Your task to perform on an android device: move an email to a new category in the gmail app Image 0: 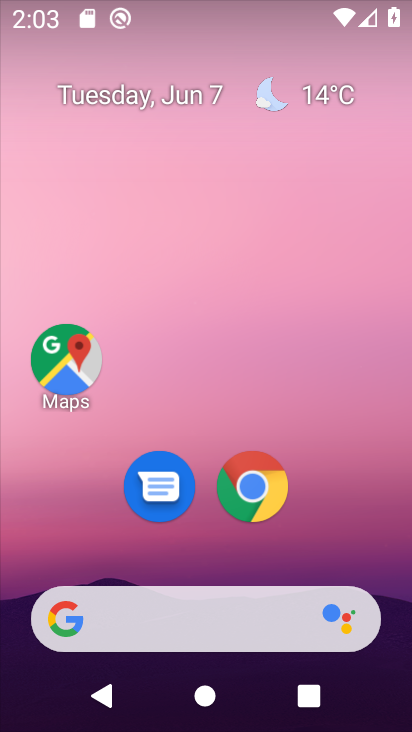
Step 0: drag from (118, 480) to (189, 159)
Your task to perform on an android device: move an email to a new category in the gmail app Image 1: 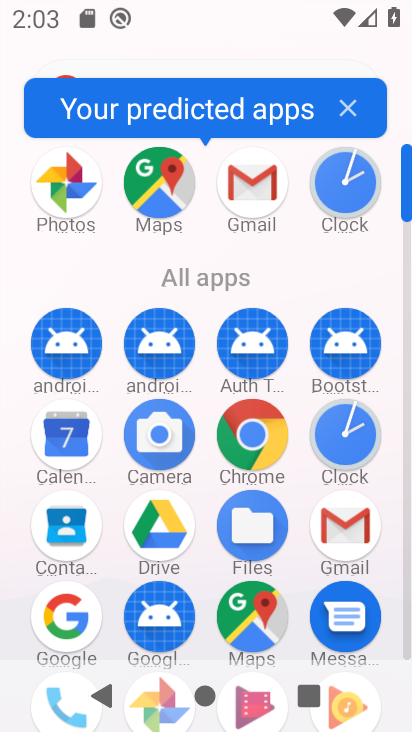
Step 1: drag from (196, 596) to (301, 287)
Your task to perform on an android device: move an email to a new category in the gmail app Image 2: 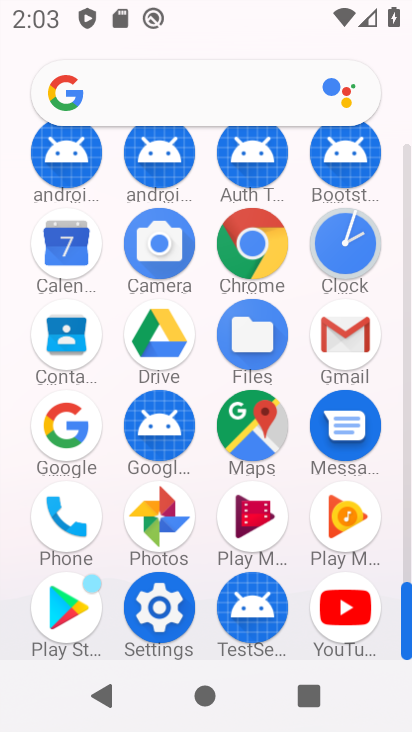
Step 2: click (345, 334)
Your task to perform on an android device: move an email to a new category in the gmail app Image 3: 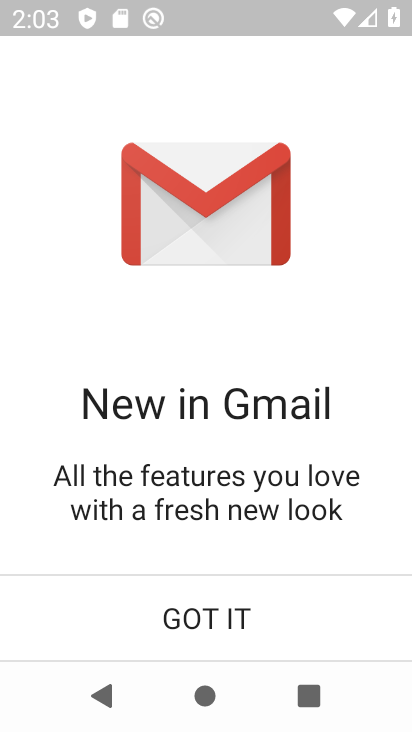
Step 3: click (236, 620)
Your task to perform on an android device: move an email to a new category in the gmail app Image 4: 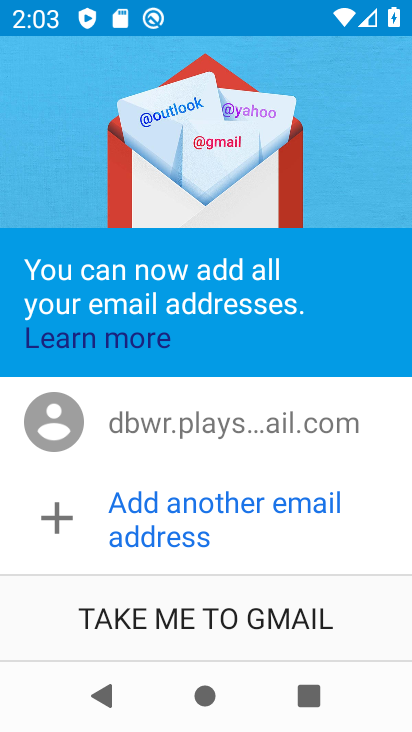
Step 4: click (243, 626)
Your task to perform on an android device: move an email to a new category in the gmail app Image 5: 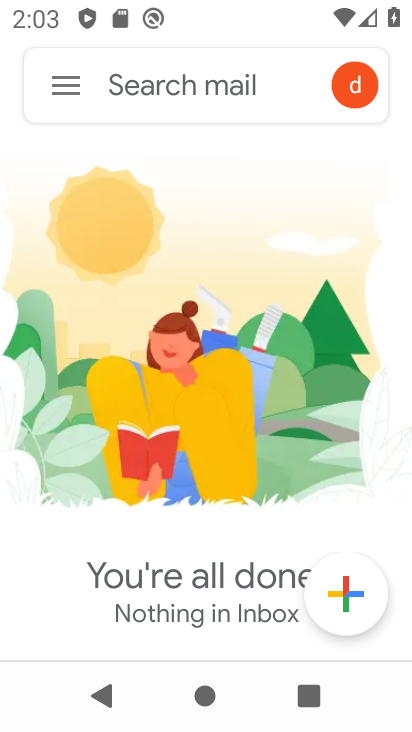
Step 5: click (80, 87)
Your task to perform on an android device: move an email to a new category in the gmail app Image 6: 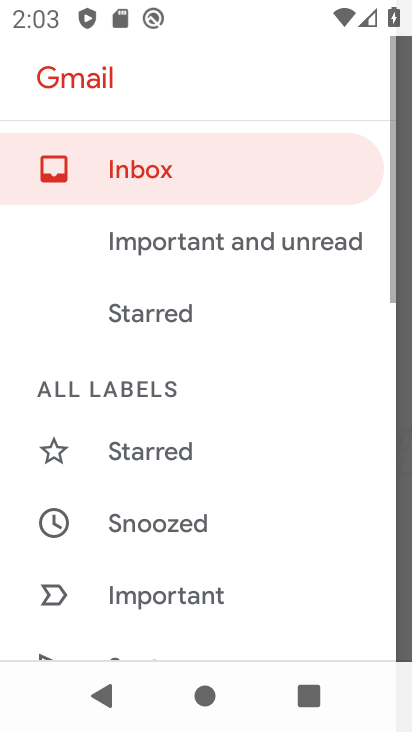
Step 6: drag from (160, 613) to (310, 220)
Your task to perform on an android device: move an email to a new category in the gmail app Image 7: 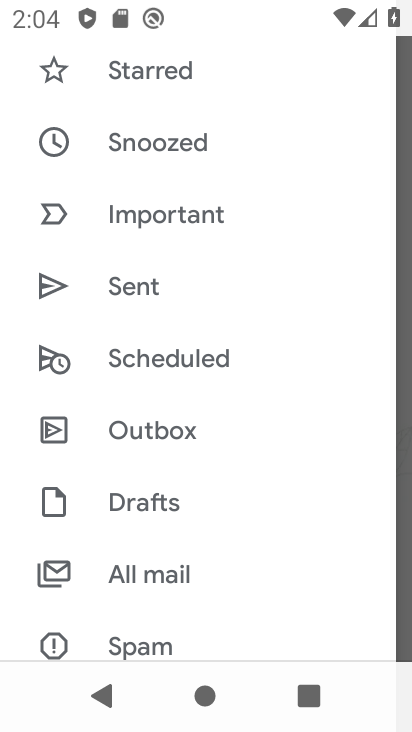
Step 7: click (197, 580)
Your task to perform on an android device: move an email to a new category in the gmail app Image 8: 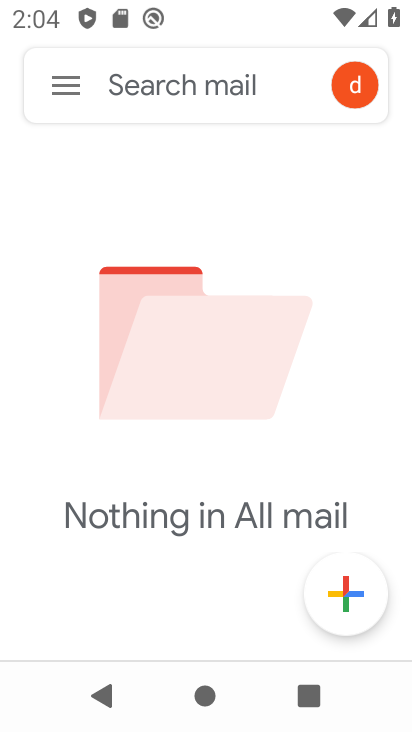
Step 8: task complete